Your task to perform on an android device: open the mobile data screen to see how much data has been used Image 0: 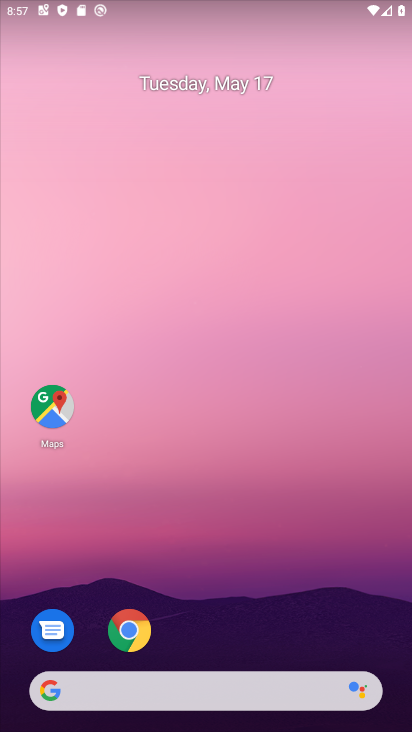
Step 0: drag from (216, 622) to (157, 128)
Your task to perform on an android device: open the mobile data screen to see how much data has been used Image 1: 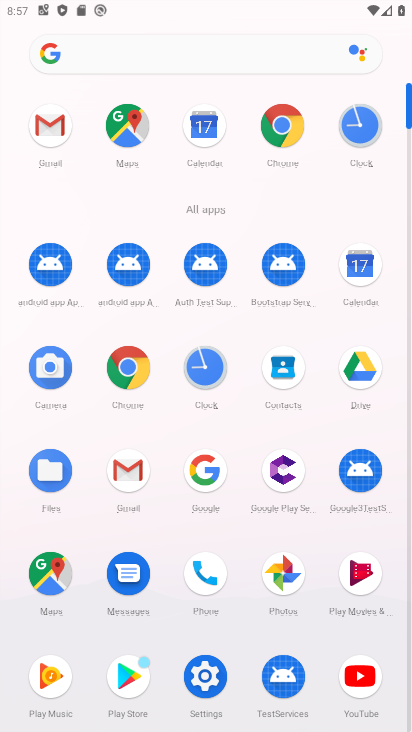
Step 1: click (204, 672)
Your task to perform on an android device: open the mobile data screen to see how much data has been used Image 2: 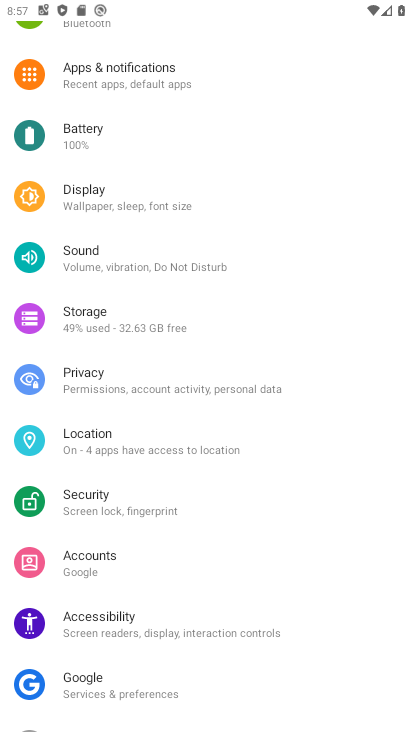
Step 2: drag from (142, 137) to (124, 452)
Your task to perform on an android device: open the mobile data screen to see how much data has been used Image 3: 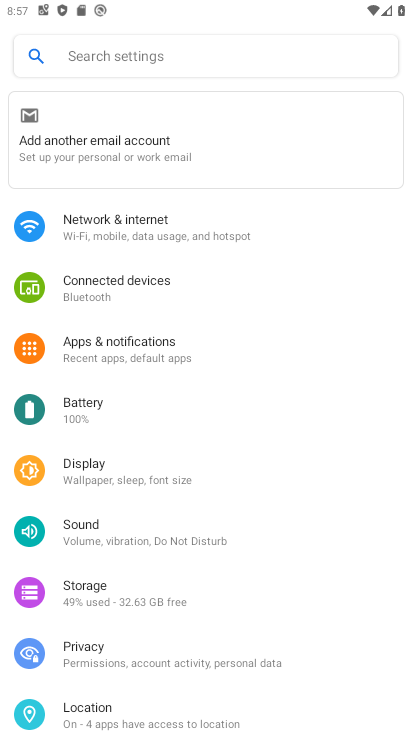
Step 3: click (118, 228)
Your task to perform on an android device: open the mobile data screen to see how much data has been used Image 4: 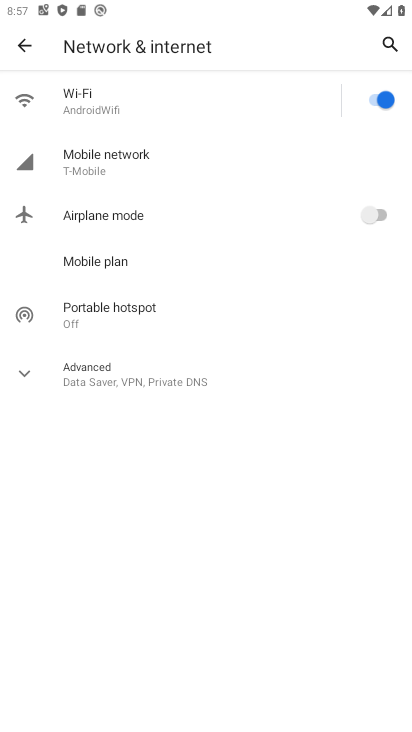
Step 4: click (126, 163)
Your task to perform on an android device: open the mobile data screen to see how much data has been used Image 5: 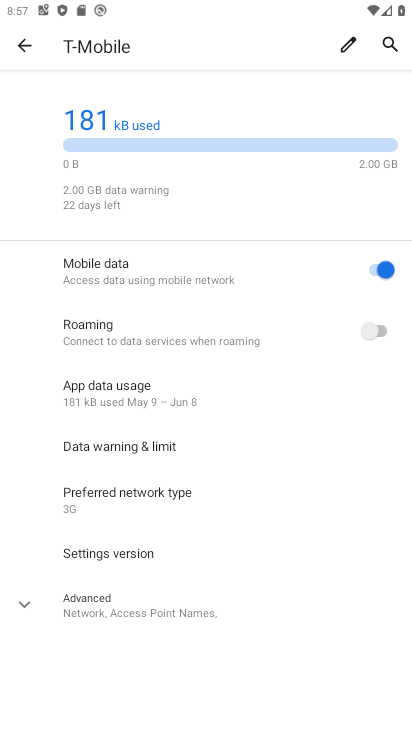
Step 5: task complete